Your task to perform on an android device: Go to Yahoo.com Image 0: 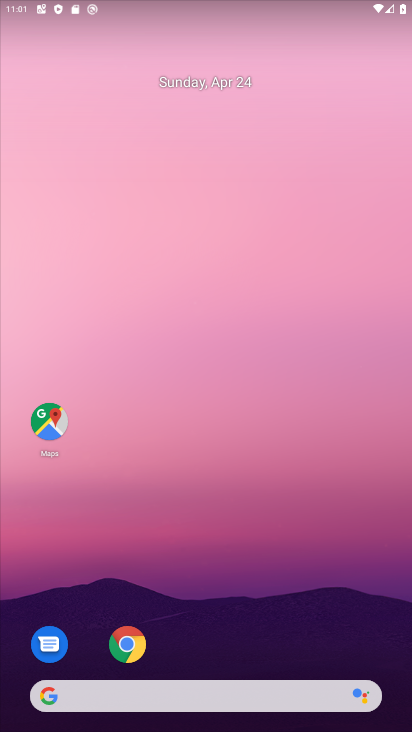
Step 0: click (128, 646)
Your task to perform on an android device: Go to Yahoo.com Image 1: 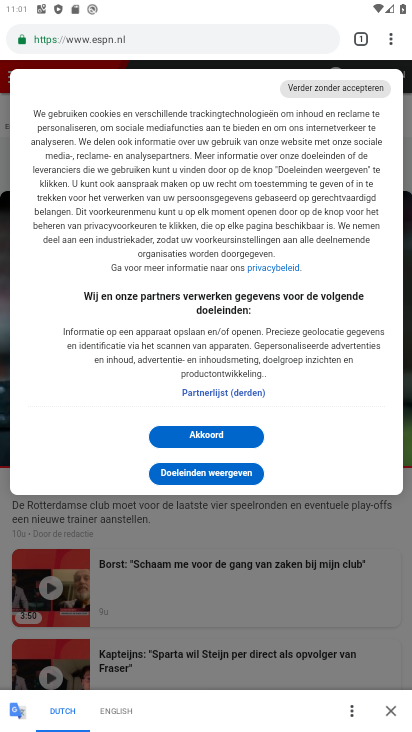
Step 1: click (128, 37)
Your task to perform on an android device: Go to Yahoo.com Image 2: 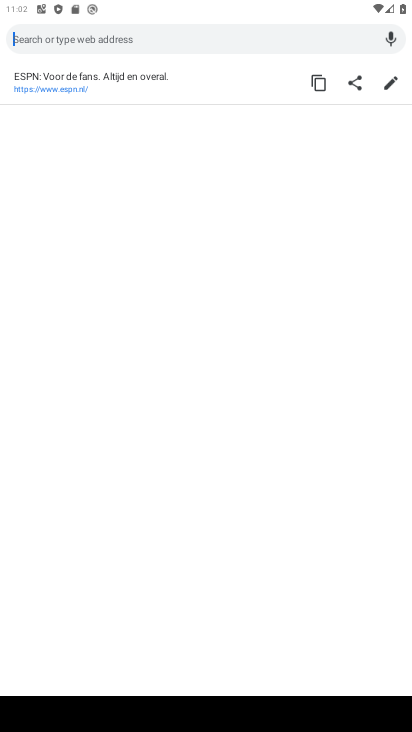
Step 2: type "yahoo.com"
Your task to perform on an android device: Go to Yahoo.com Image 3: 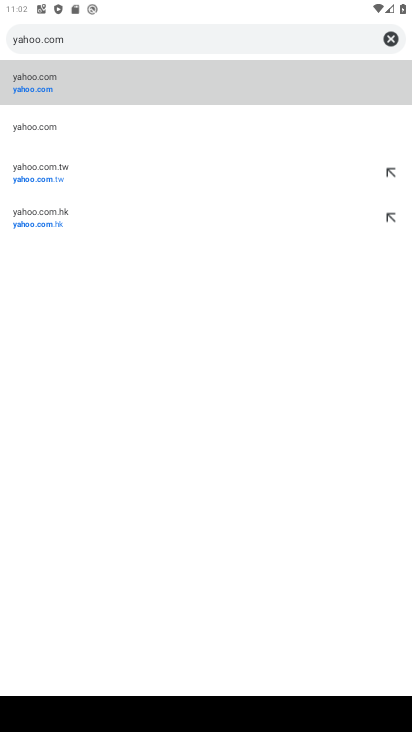
Step 3: click (32, 93)
Your task to perform on an android device: Go to Yahoo.com Image 4: 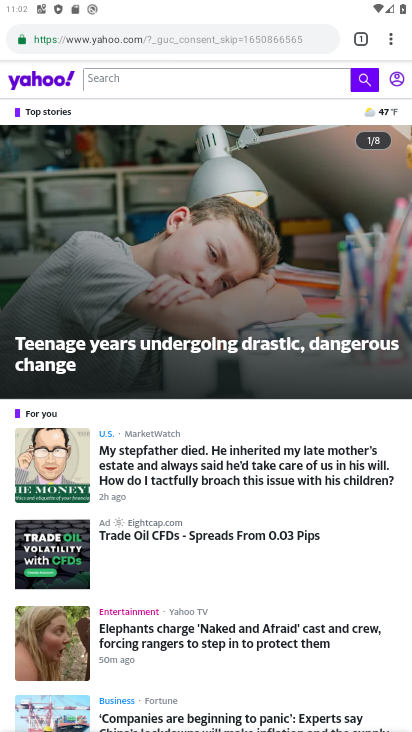
Step 4: task complete